Your task to perform on an android device: open device folders in google photos Image 0: 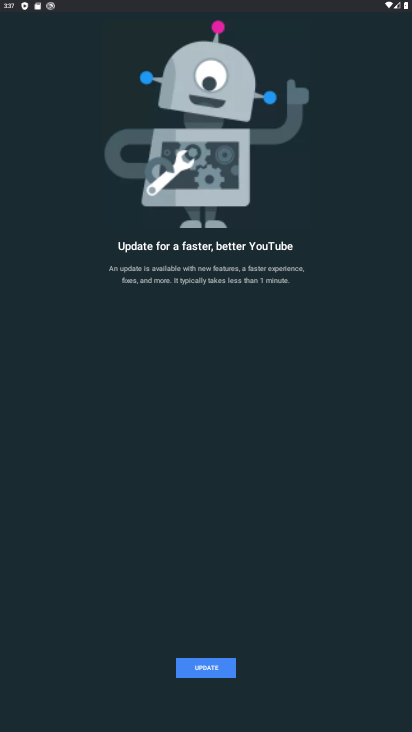
Step 0: press back button
Your task to perform on an android device: open device folders in google photos Image 1: 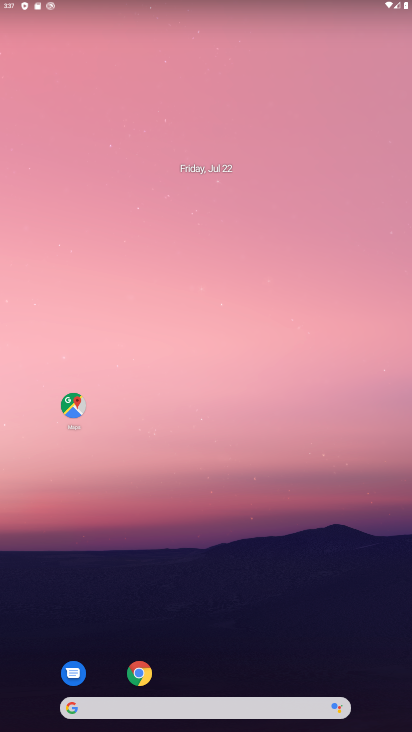
Step 1: drag from (201, 528) to (211, 40)
Your task to perform on an android device: open device folders in google photos Image 2: 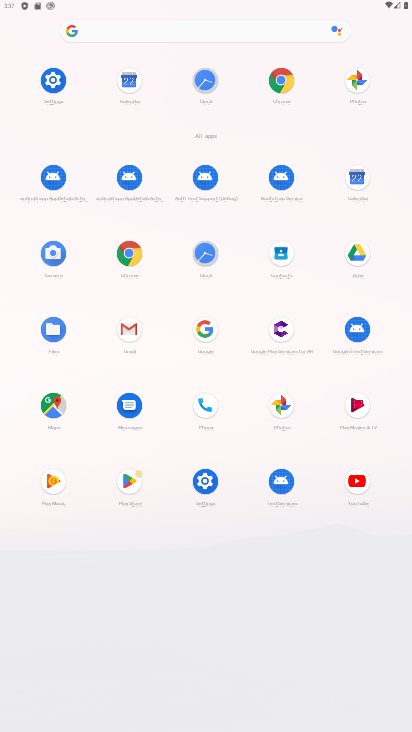
Step 2: click (58, 83)
Your task to perform on an android device: open device folders in google photos Image 3: 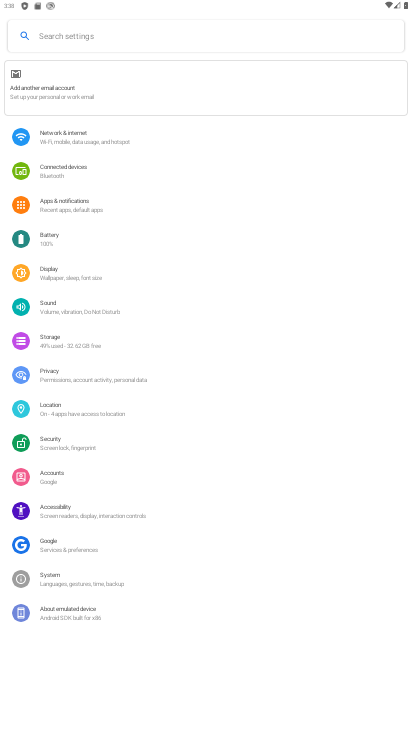
Step 3: press back button
Your task to perform on an android device: open device folders in google photos Image 4: 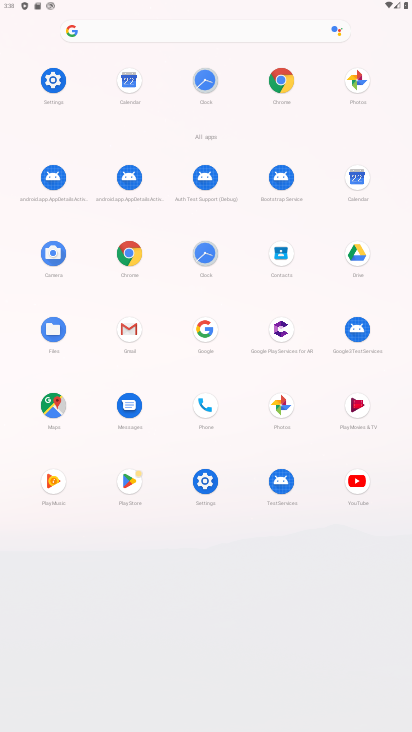
Step 4: click (283, 399)
Your task to perform on an android device: open device folders in google photos Image 5: 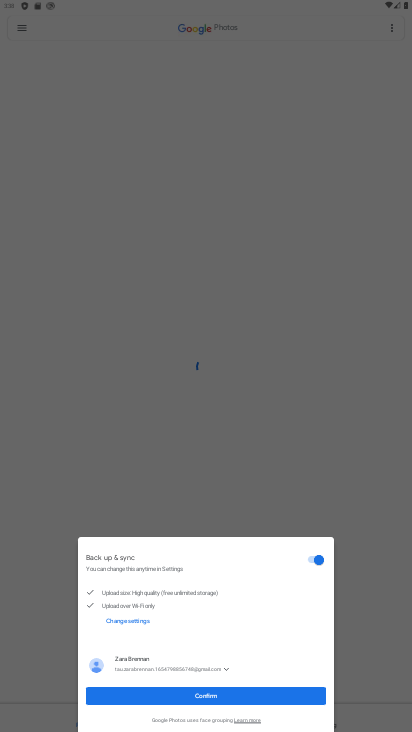
Step 5: click (203, 689)
Your task to perform on an android device: open device folders in google photos Image 6: 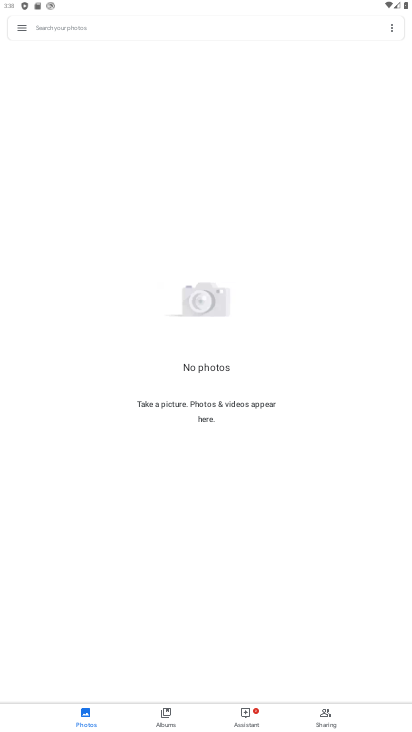
Step 6: click (20, 24)
Your task to perform on an android device: open device folders in google photos Image 7: 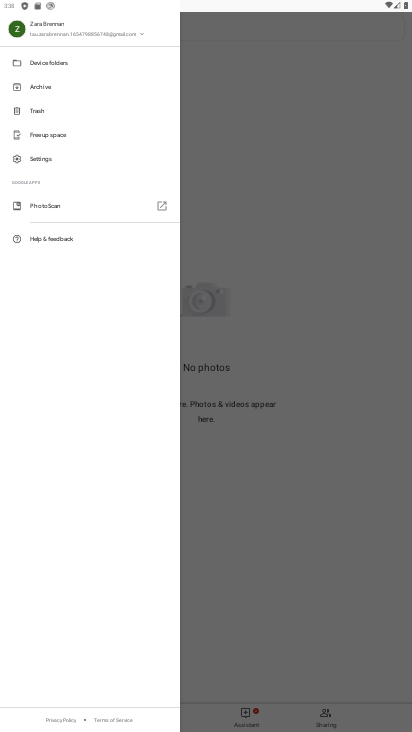
Step 7: click (51, 56)
Your task to perform on an android device: open device folders in google photos Image 8: 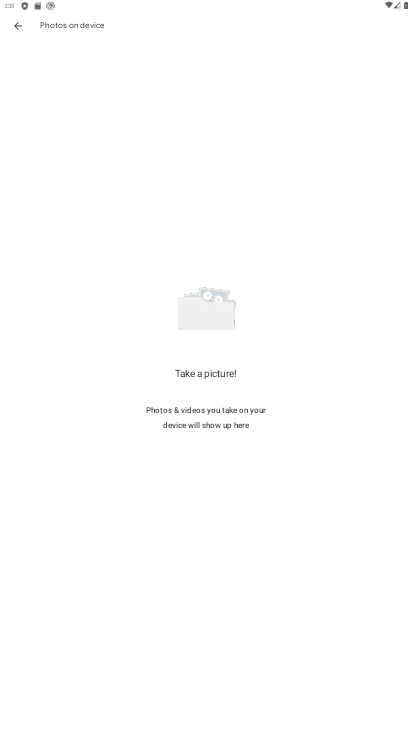
Step 8: task complete